Your task to perform on an android device: Open Wikipedia Image 0: 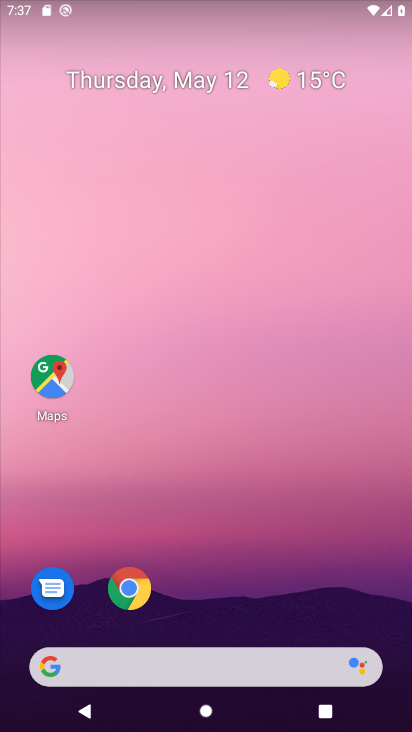
Step 0: click (138, 591)
Your task to perform on an android device: Open Wikipedia Image 1: 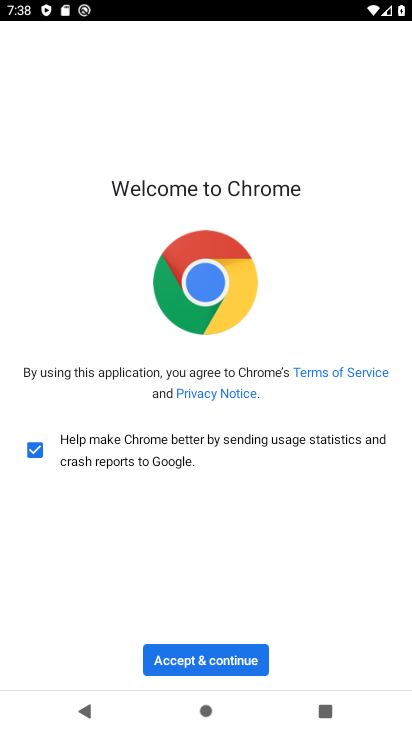
Step 1: click (216, 663)
Your task to perform on an android device: Open Wikipedia Image 2: 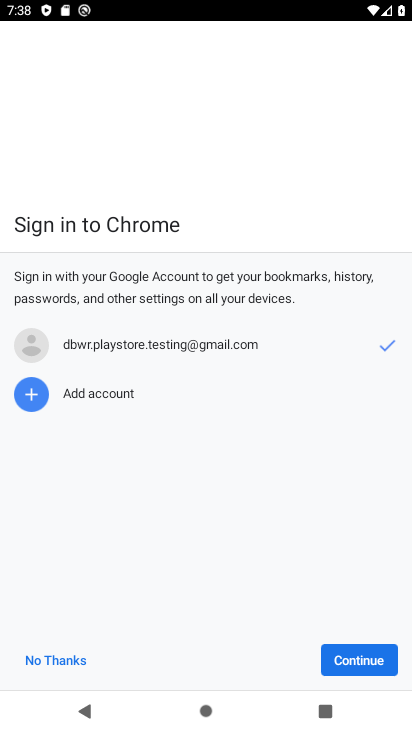
Step 2: click (336, 672)
Your task to perform on an android device: Open Wikipedia Image 3: 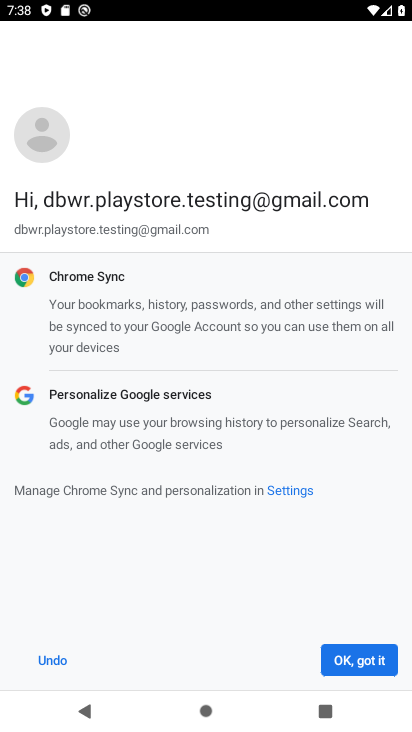
Step 3: click (370, 667)
Your task to perform on an android device: Open Wikipedia Image 4: 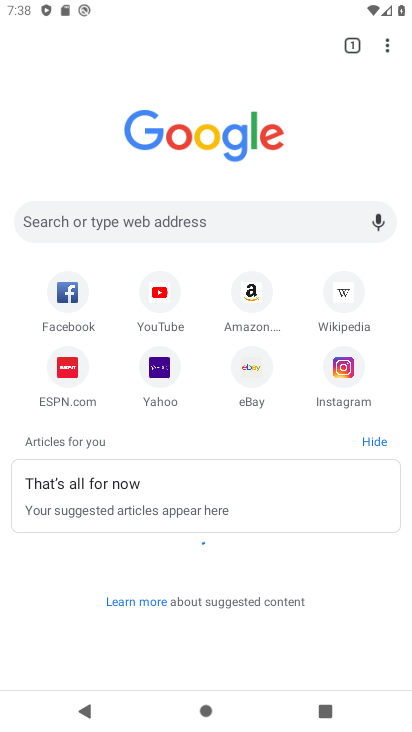
Step 4: click (125, 46)
Your task to perform on an android device: Open Wikipedia Image 5: 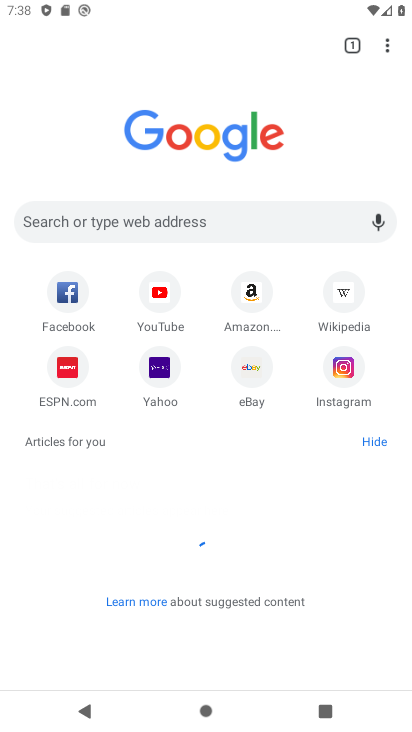
Step 5: click (64, 224)
Your task to perform on an android device: Open Wikipedia Image 6: 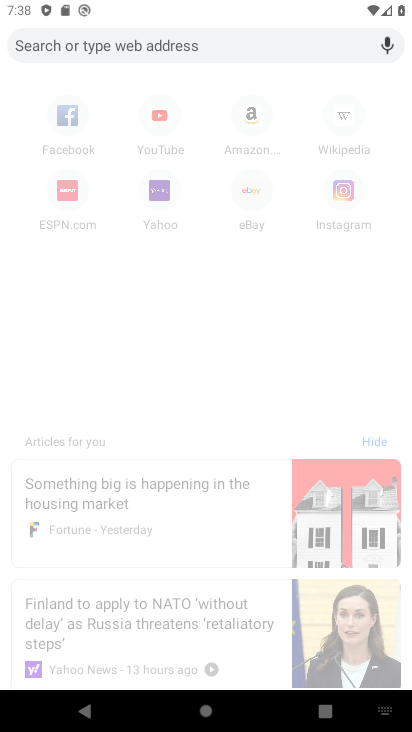
Step 6: type "wikipedia"
Your task to perform on an android device: Open Wikipedia Image 7: 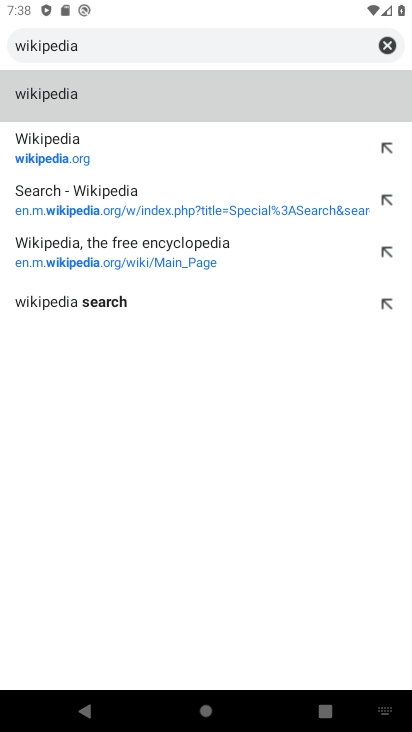
Step 7: click (144, 89)
Your task to perform on an android device: Open Wikipedia Image 8: 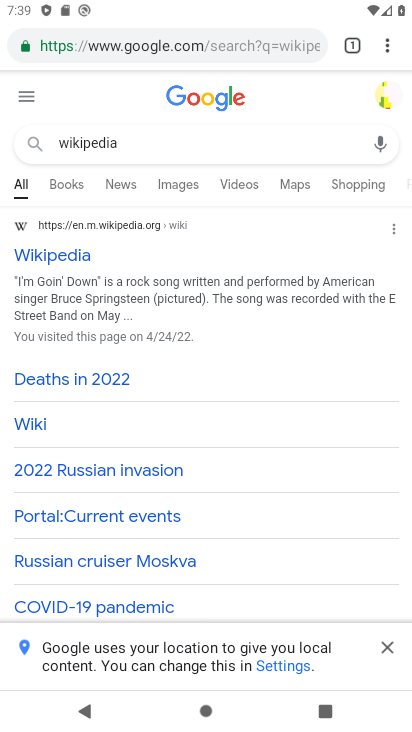
Step 8: task complete